Your task to perform on an android device: turn on data saver in the chrome app Image 0: 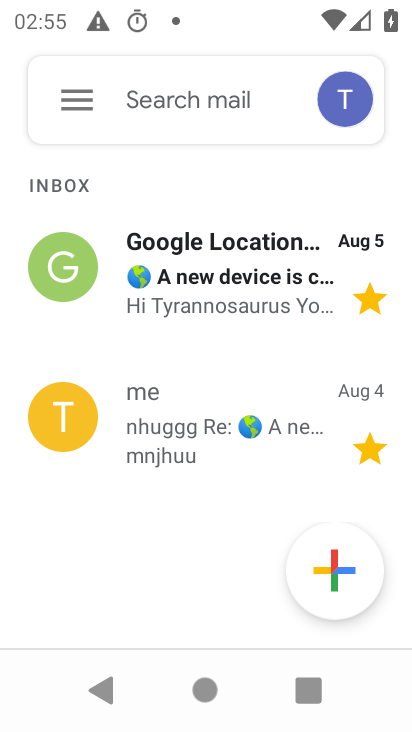
Step 0: press back button
Your task to perform on an android device: turn on data saver in the chrome app Image 1: 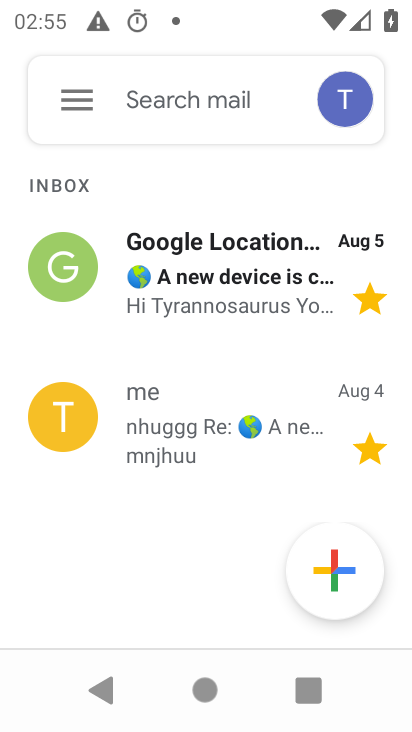
Step 1: press back button
Your task to perform on an android device: turn on data saver in the chrome app Image 2: 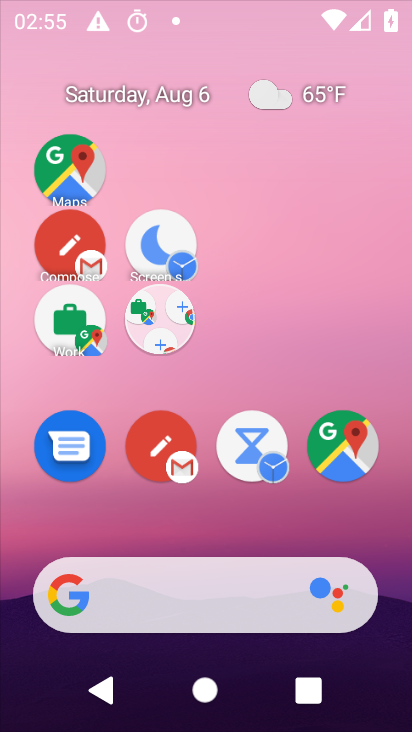
Step 2: press back button
Your task to perform on an android device: turn on data saver in the chrome app Image 3: 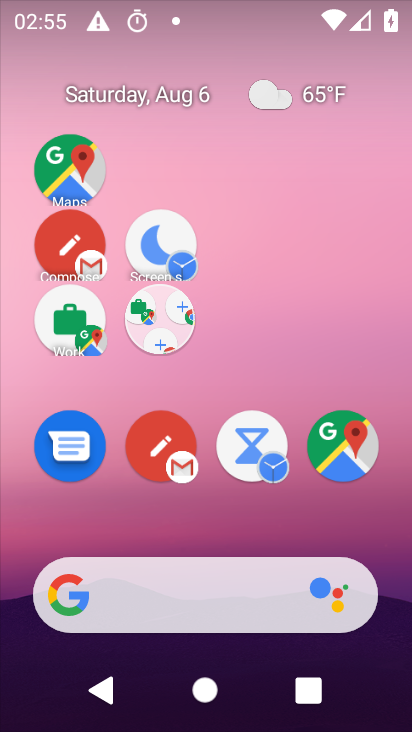
Step 3: press back button
Your task to perform on an android device: turn on data saver in the chrome app Image 4: 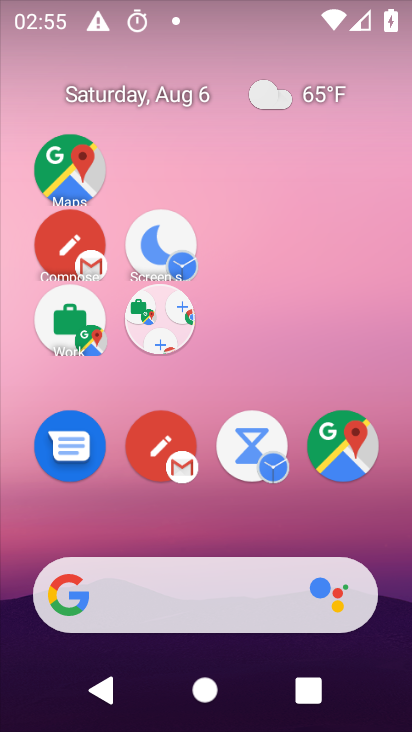
Step 4: press back button
Your task to perform on an android device: turn on data saver in the chrome app Image 5: 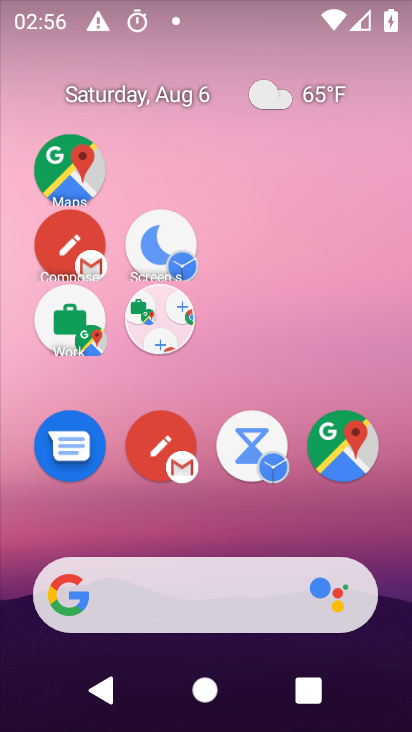
Step 5: drag from (213, 492) to (172, 218)
Your task to perform on an android device: turn on data saver in the chrome app Image 6: 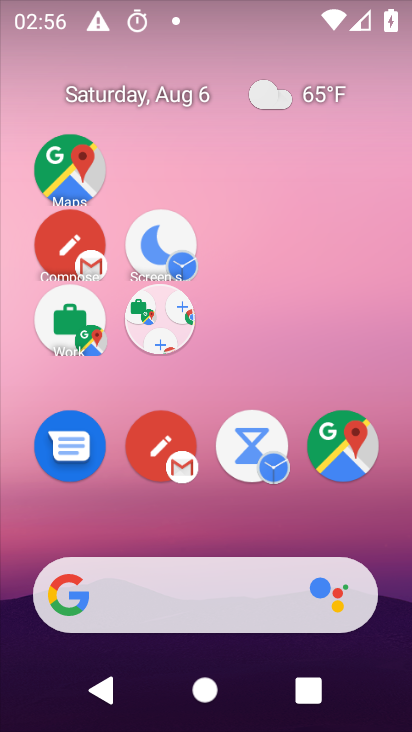
Step 6: drag from (203, 435) to (187, 272)
Your task to perform on an android device: turn on data saver in the chrome app Image 7: 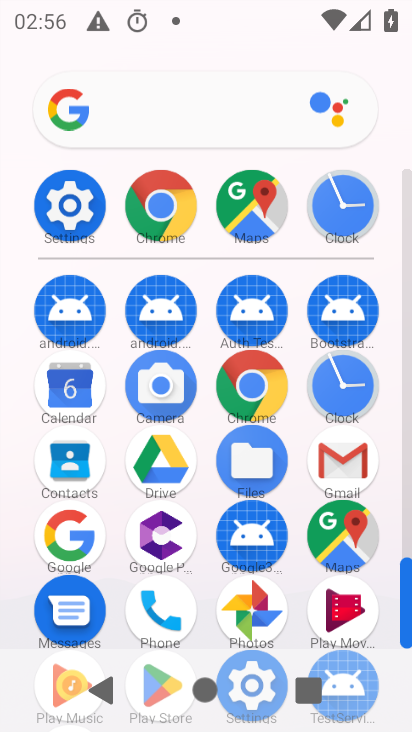
Step 7: drag from (218, 483) to (221, 123)
Your task to perform on an android device: turn on data saver in the chrome app Image 8: 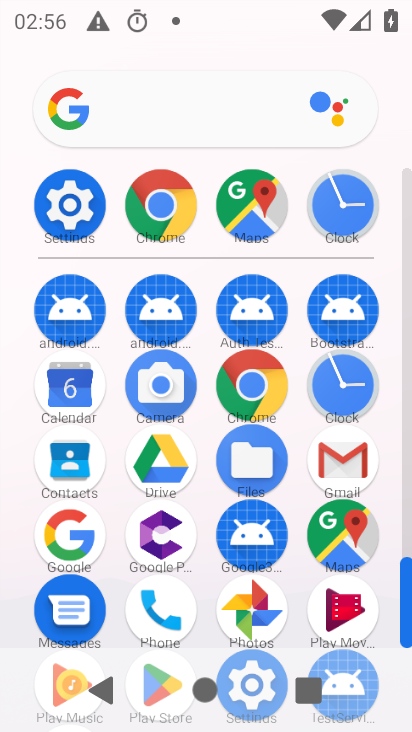
Step 8: drag from (307, 407) to (327, 286)
Your task to perform on an android device: turn on data saver in the chrome app Image 9: 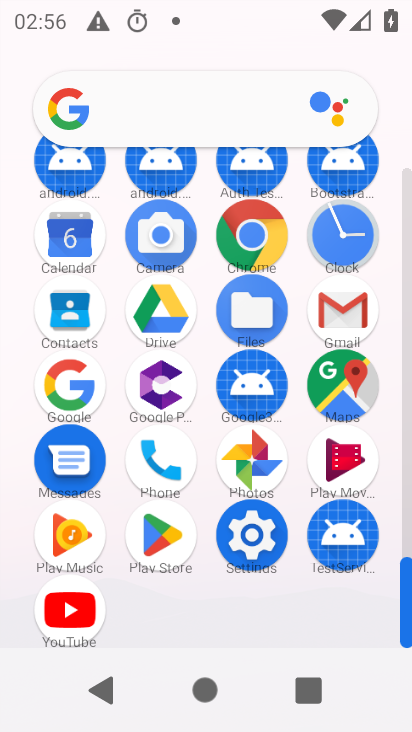
Step 9: click (239, 235)
Your task to perform on an android device: turn on data saver in the chrome app Image 10: 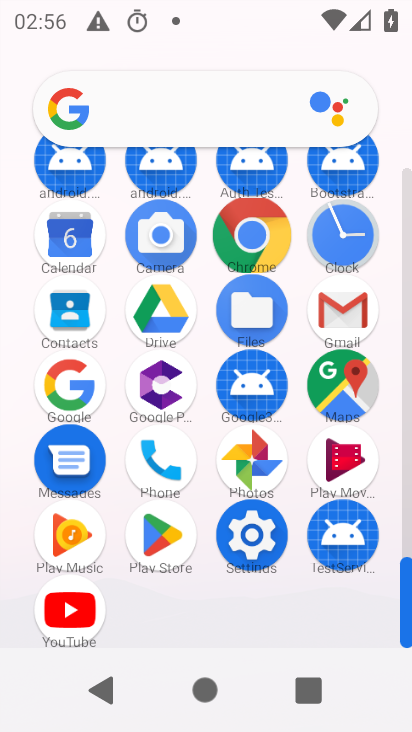
Step 10: click (268, 228)
Your task to perform on an android device: turn on data saver in the chrome app Image 11: 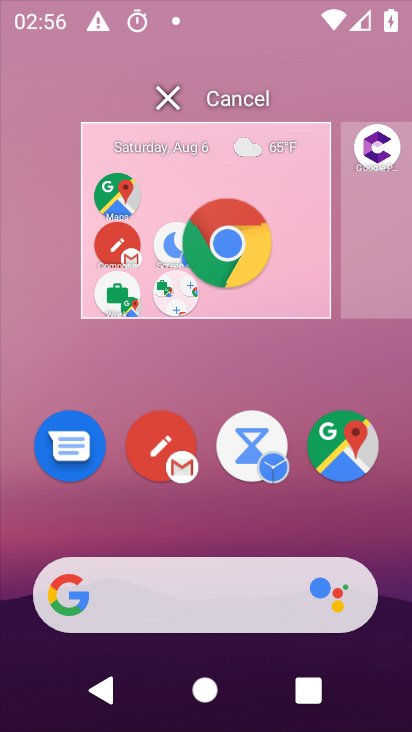
Step 11: click (243, 240)
Your task to perform on an android device: turn on data saver in the chrome app Image 12: 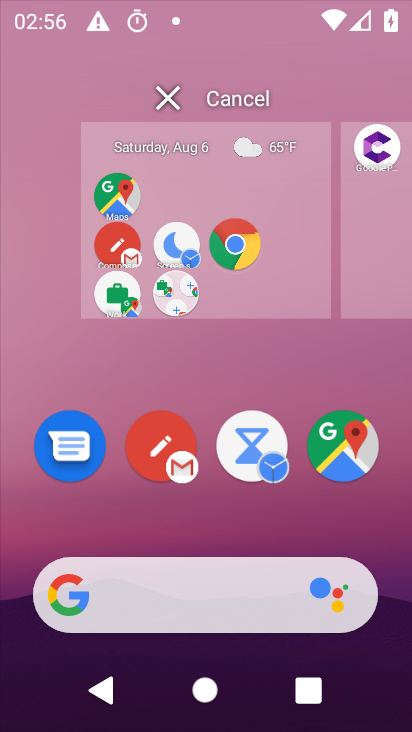
Step 12: click (244, 241)
Your task to perform on an android device: turn on data saver in the chrome app Image 13: 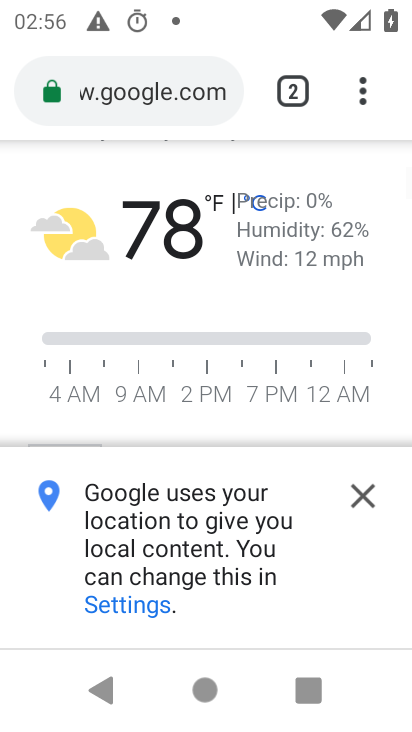
Step 13: drag from (367, 90) to (78, 486)
Your task to perform on an android device: turn on data saver in the chrome app Image 14: 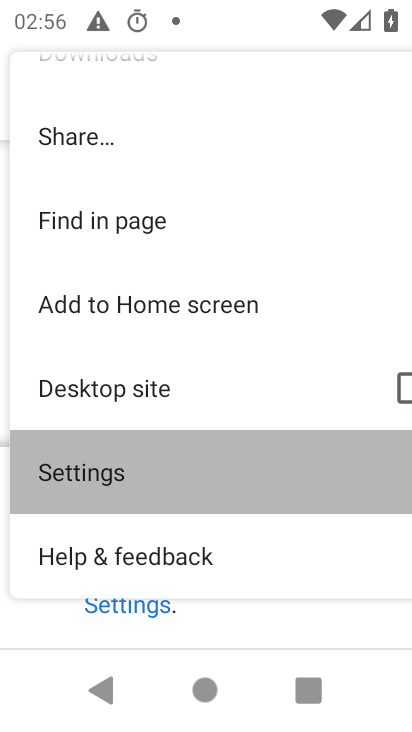
Step 14: click (78, 488)
Your task to perform on an android device: turn on data saver in the chrome app Image 15: 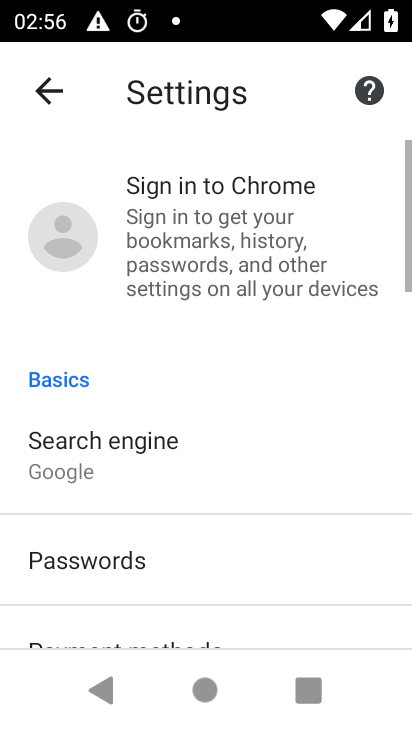
Step 15: drag from (172, 441) to (148, 203)
Your task to perform on an android device: turn on data saver in the chrome app Image 16: 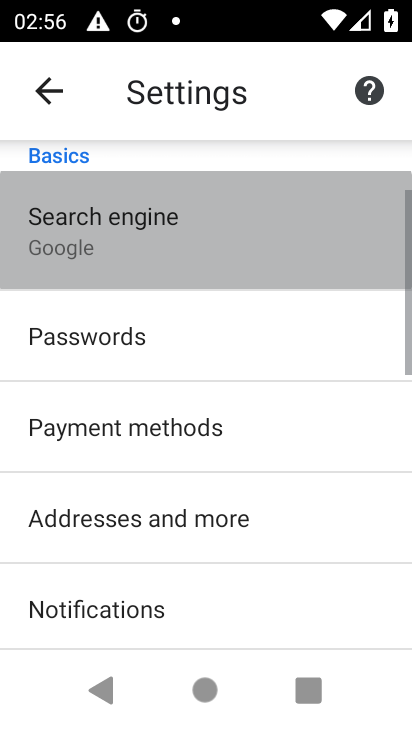
Step 16: drag from (184, 434) to (171, 187)
Your task to perform on an android device: turn on data saver in the chrome app Image 17: 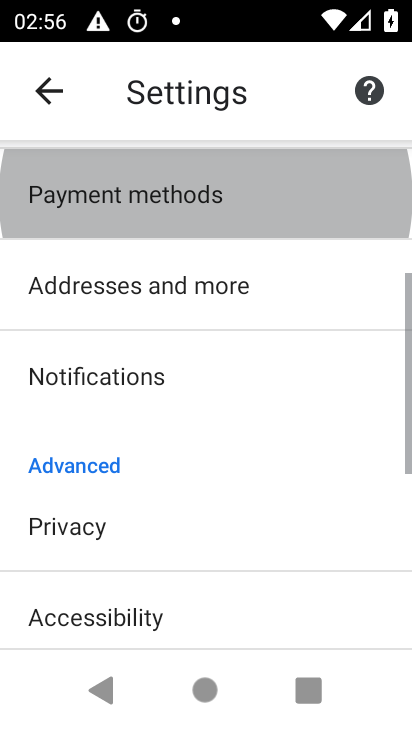
Step 17: drag from (196, 375) to (196, 223)
Your task to perform on an android device: turn on data saver in the chrome app Image 18: 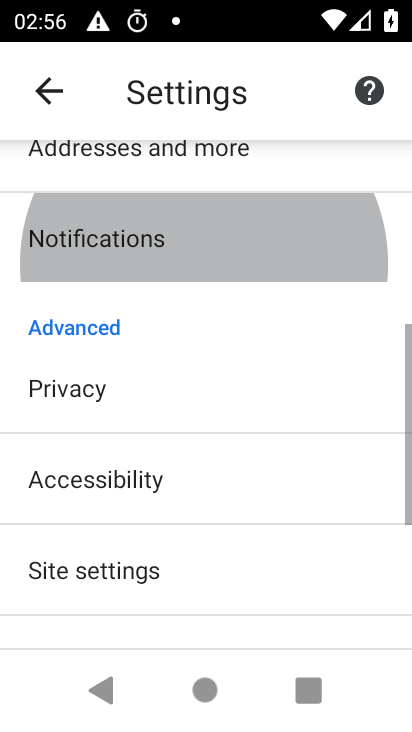
Step 18: drag from (248, 404) to (220, 187)
Your task to perform on an android device: turn on data saver in the chrome app Image 19: 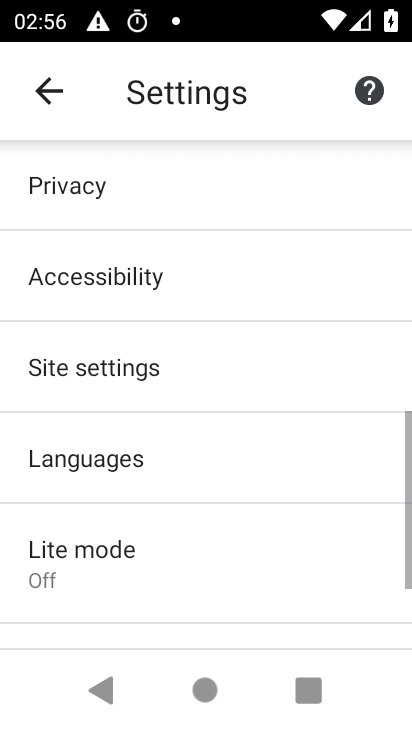
Step 19: drag from (228, 448) to (219, 210)
Your task to perform on an android device: turn on data saver in the chrome app Image 20: 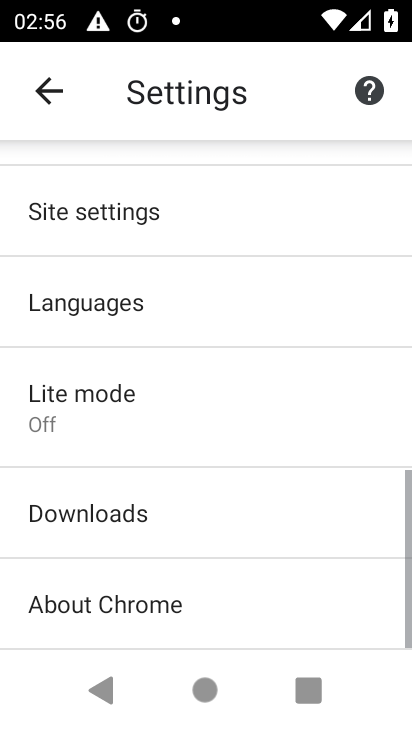
Step 20: click (66, 406)
Your task to perform on an android device: turn on data saver in the chrome app Image 21: 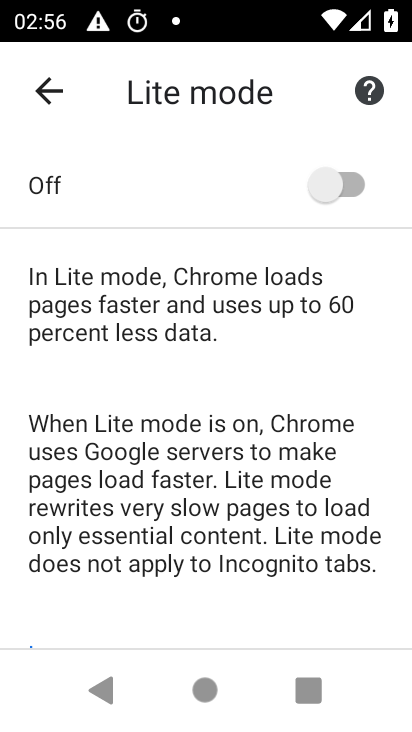
Step 21: click (336, 183)
Your task to perform on an android device: turn on data saver in the chrome app Image 22: 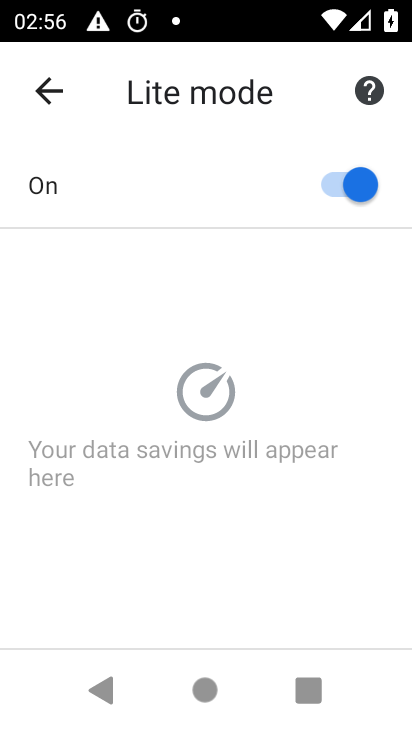
Step 22: task complete